Your task to perform on an android device: Go to privacy settings Image 0: 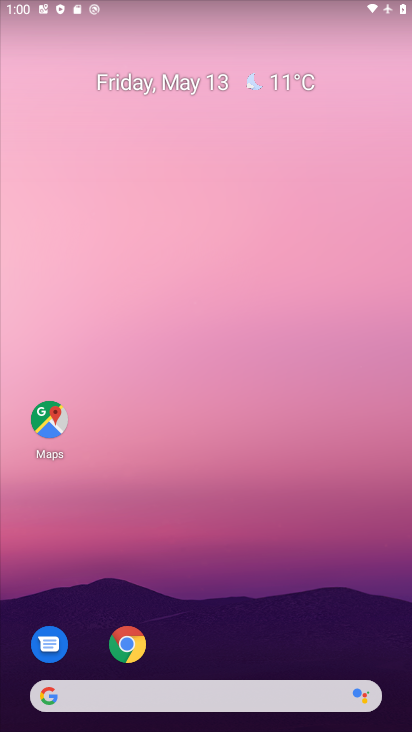
Step 0: drag from (214, 726) to (224, 130)
Your task to perform on an android device: Go to privacy settings Image 1: 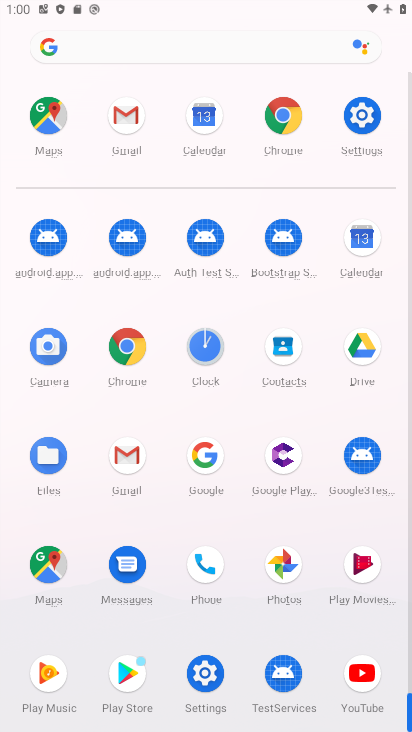
Step 1: click (365, 110)
Your task to perform on an android device: Go to privacy settings Image 2: 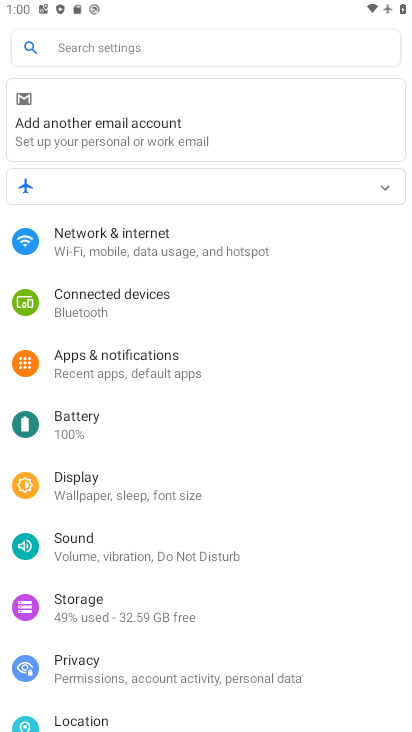
Step 2: click (64, 664)
Your task to perform on an android device: Go to privacy settings Image 3: 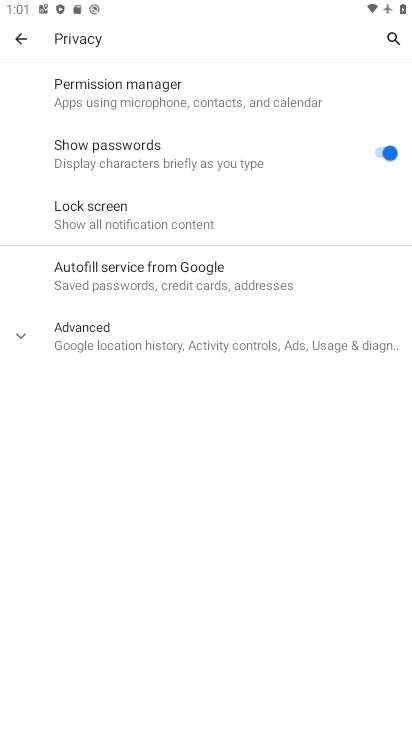
Step 3: task complete